Your task to perform on an android device: toggle show notifications on the lock screen Image 0: 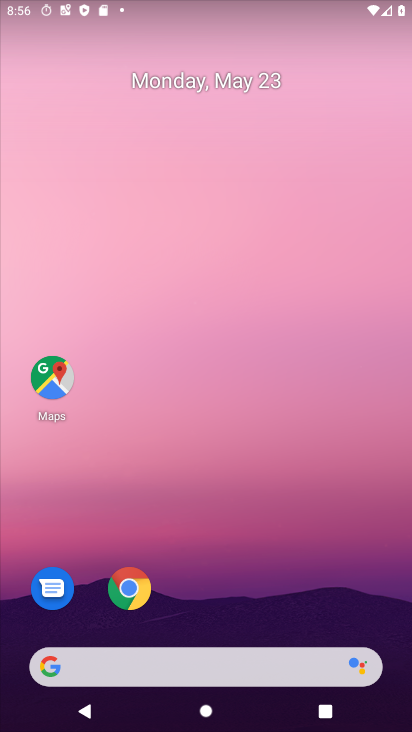
Step 0: drag from (390, 681) to (387, 272)
Your task to perform on an android device: toggle show notifications on the lock screen Image 1: 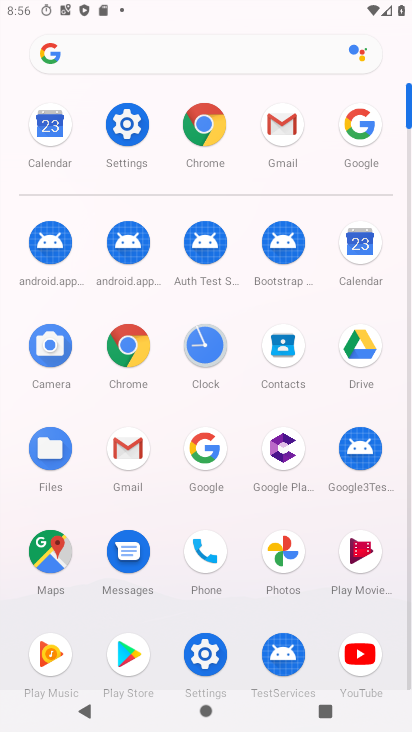
Step 1: click (197, 637)
Your task to perform on an android device: toggle show notifications on the lock screen Image 2: 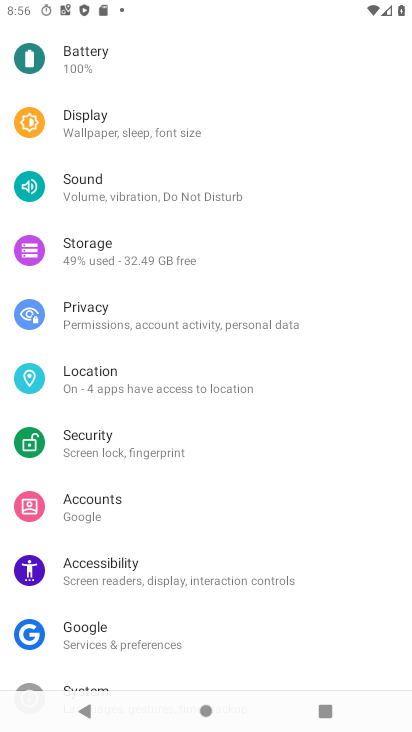
Step 2: drag from (331, 110) to (328, 634)
Your task to perform on an android device: toggle show notifications on the lock screen Image 3: 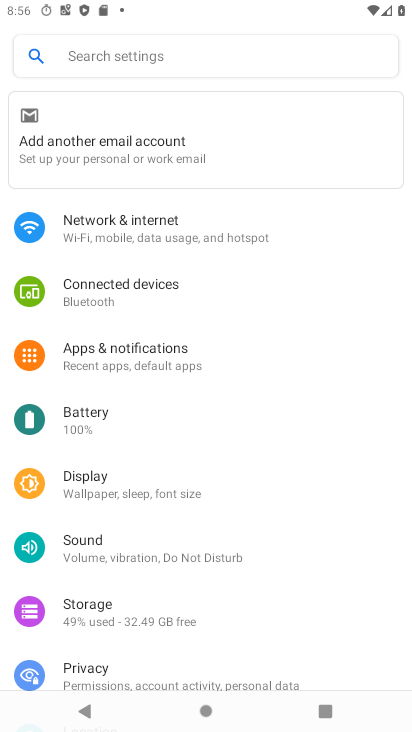
Step 3: click (116, 347)
Your task to perform on an android device: toggle show notifications on the lock screen Image 4: 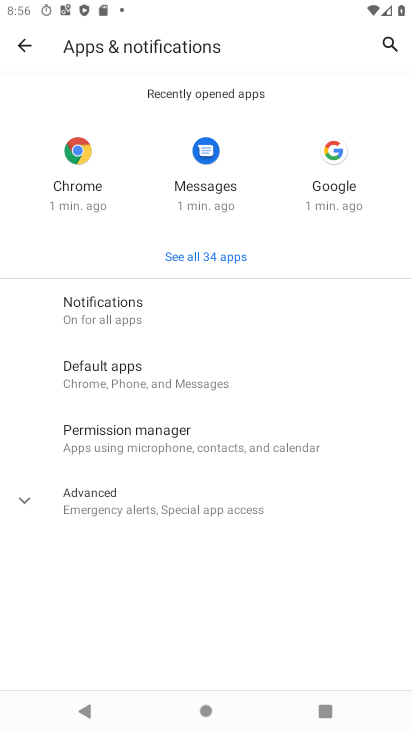
Step 4: click (114, 314)
Your task to perform on an android device: toggle show notifications on the lock screen Image 5: 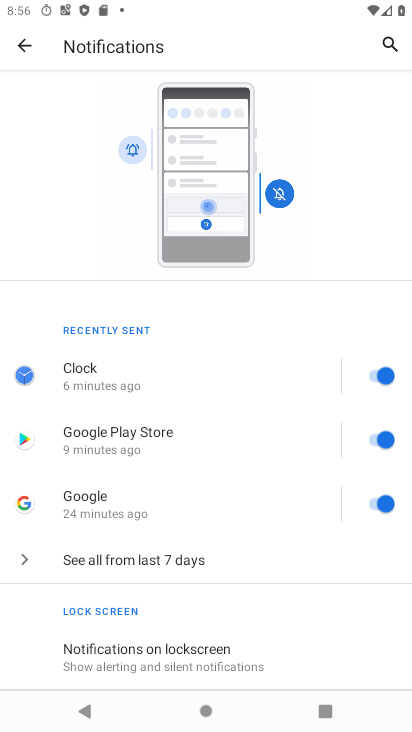
Step 5: drag from (283, 522) to (289, 359)
Your task to perform on an android device: toggle show notifications on the lock screen Image 6: 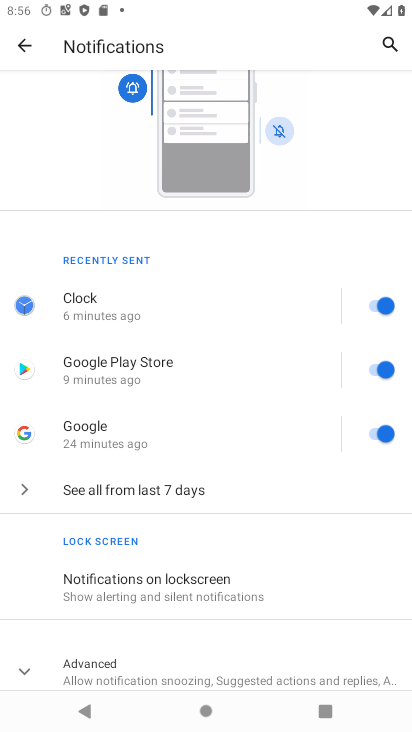
Step 6: click (114, 579)
Your task to perform on an android device: toggle show notifications on the lock screen Image 7: 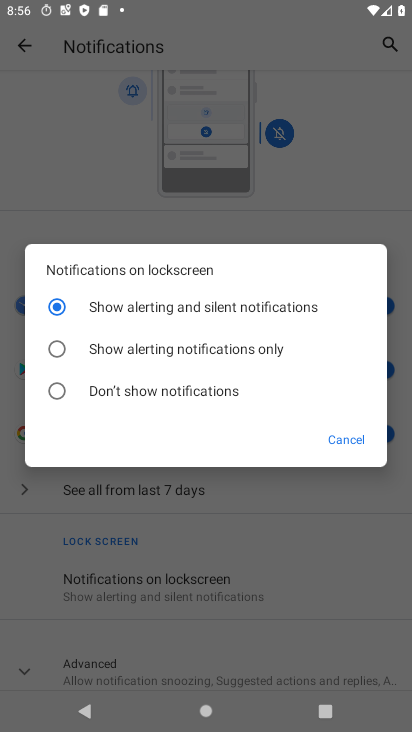
Step 7: click (51, 350)
Your task to perform on an android device: toggle show notifications on the lock screen Image 8: 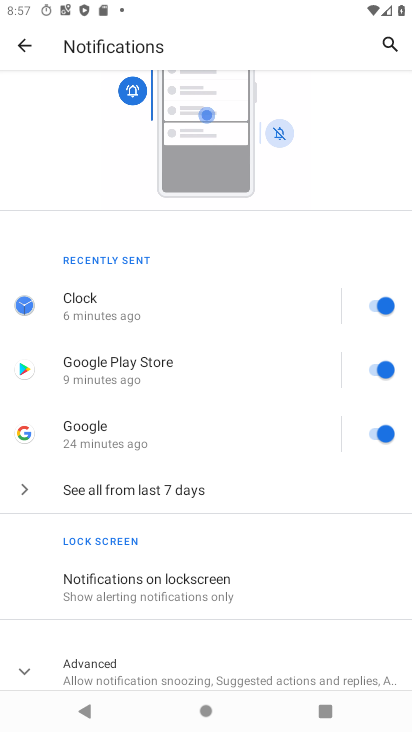
Step 8: task complete